Your task to perform on an android device: open sync settings in chrome Image 0: 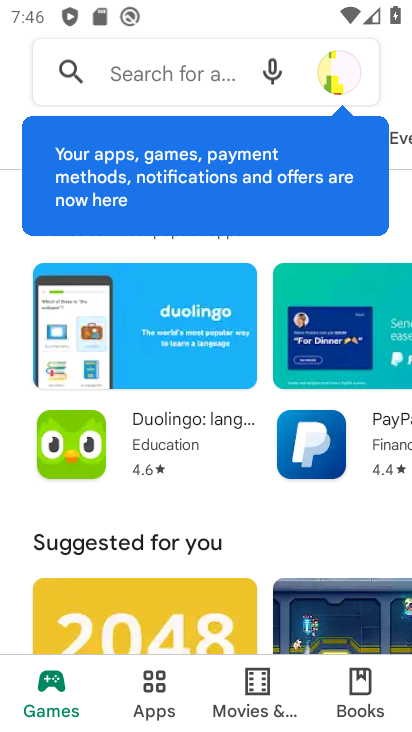
Step 0: press home button
Your task to perform on an android device: open sync settings in chrome Image 1: 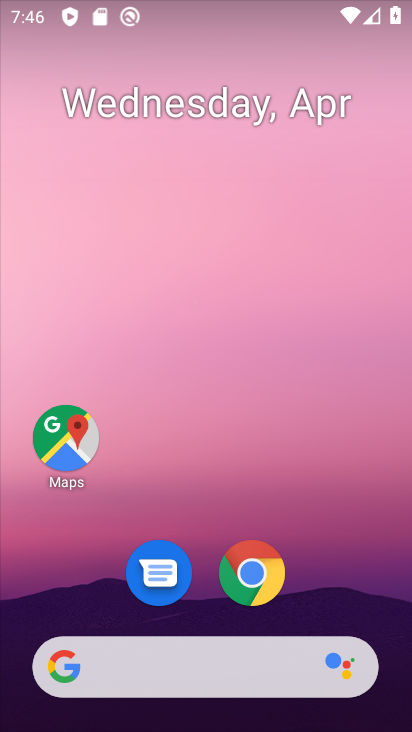
Step 1: click (253, 576)
Your task to perform on an android device: open sync settings in chrome Image 2: 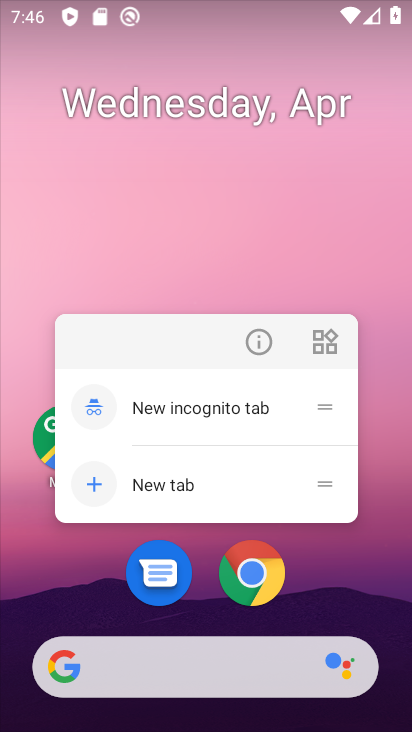
Step 2: click (249, 342)
Your task to perform on an android device: open sync settings in chrome Image 3: 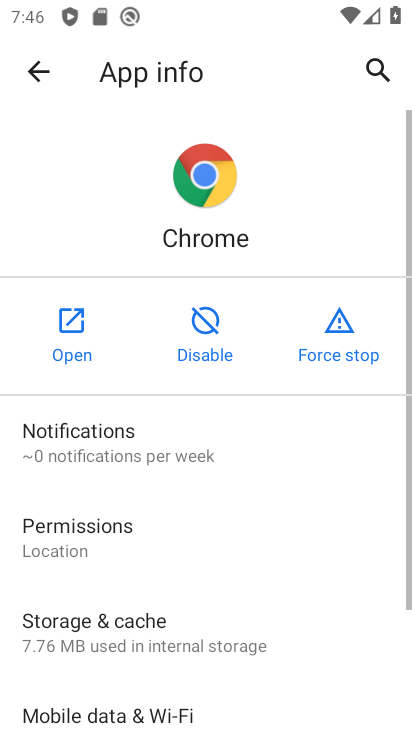
Step 3: click (65, 327)
Your task to perform on an android device: open sync settings in chrome Image 4: 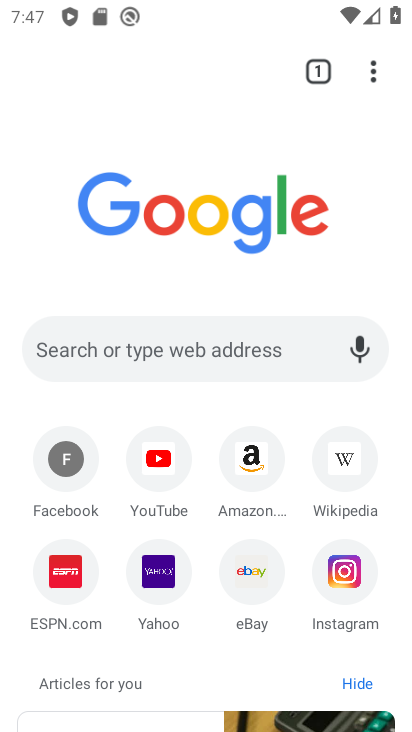
Step 4: click (379, 70)
Your task to perform on an android device: open sync settings in chrome Image 5: 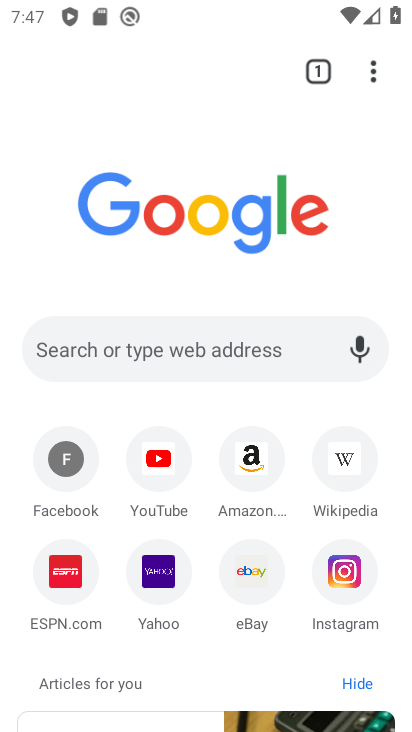
Step 5: click (411, 394)
Your task to perform on an android device: open sync settings in chrome Image 6: 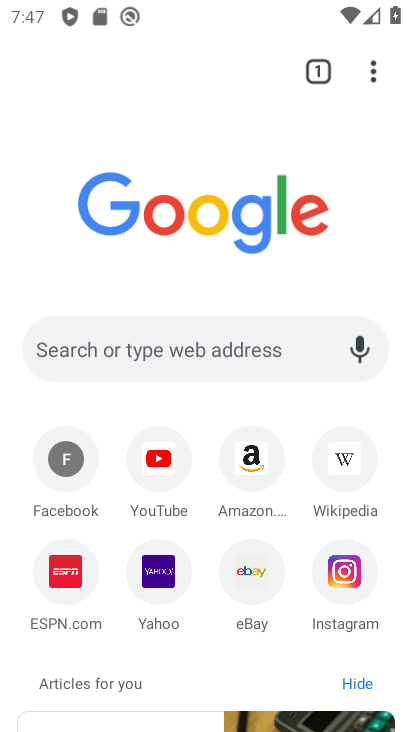
Step 6: click (380, 64)
Your task to perform on an android device: open sync settings in chrome Image 7: 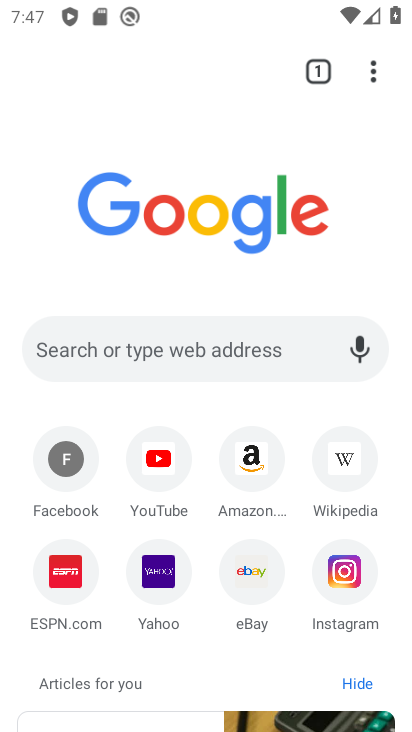
Step 7: click (379, 64)
Your task to perform on an android device: open sync settings in chrome Image 8: 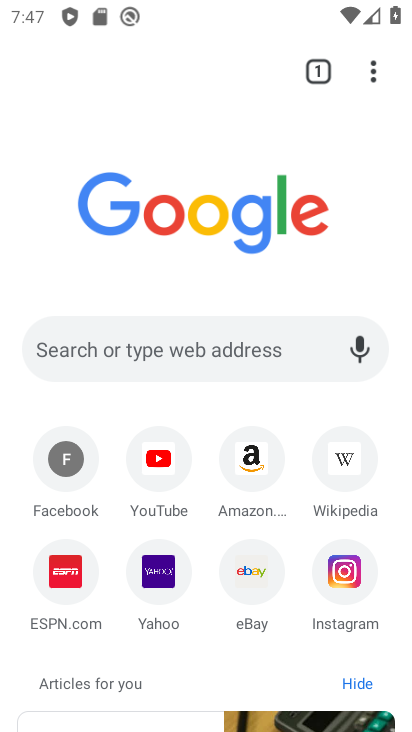
Step 8: click (370, 62)
Your task to perform on an android device: open sync settings in chrome Image 9: 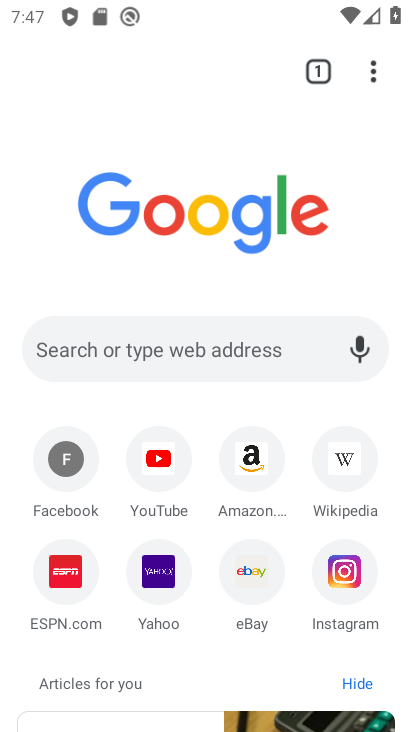
Step 9: click (375, 71)
Your task to perform on an android device: open sync settings in chrome Image 10: 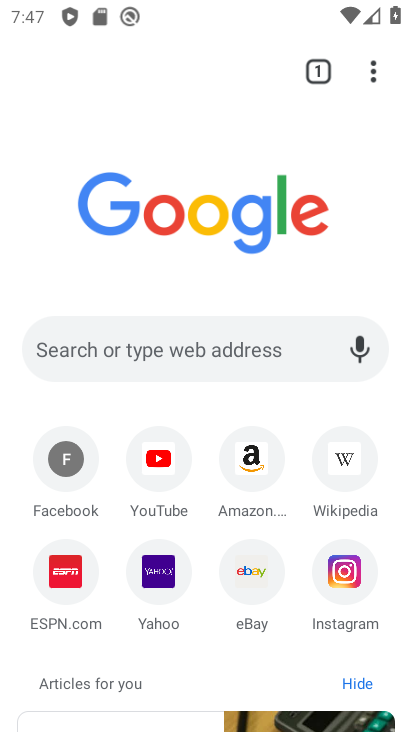
Step 10: click (375, 71)
Your task to perform on an android device: open sync settings in chrome Image 11: 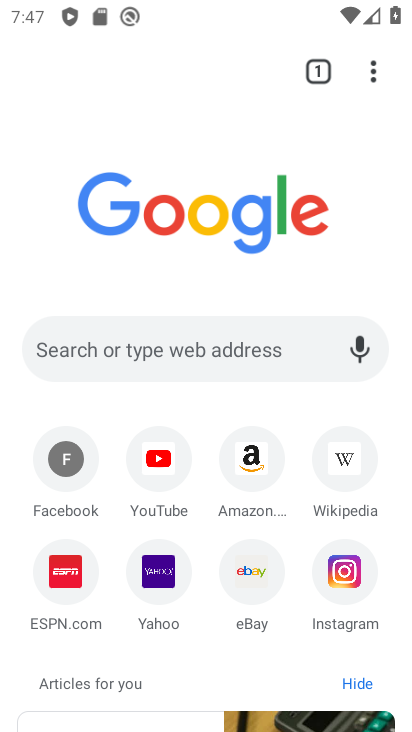
Step 11: click (399, 68)
Your task to perform on an android device: open sync settings in chrome Image 12: 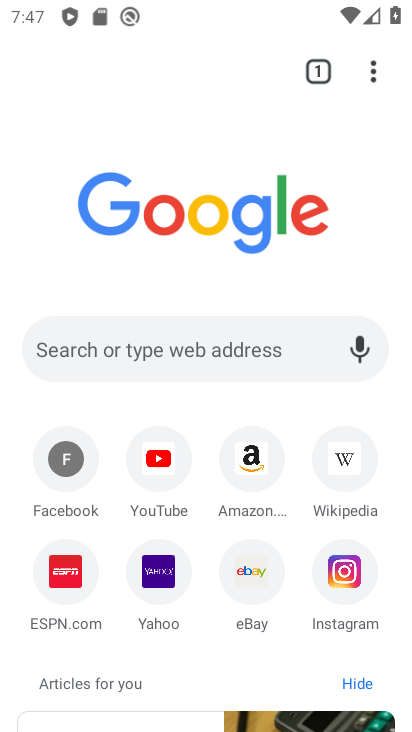
Step 12: click (399, 68)
Your task to perform on an android device: open sync settings in chrome Image 13: 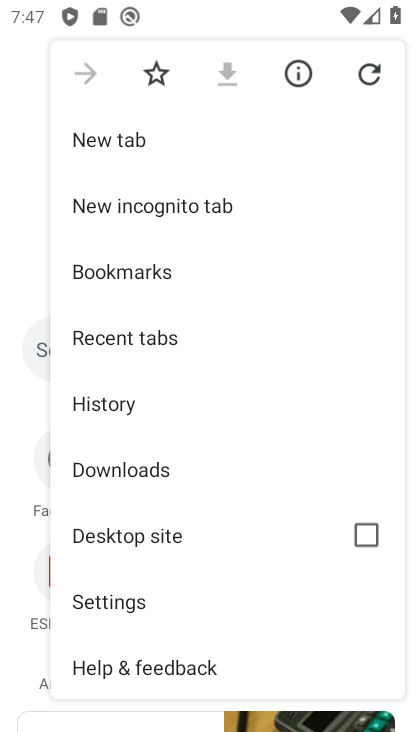
Step 13: click (119, 606)
Your task to perform on an android device: open sync settings in chrome Image 14: 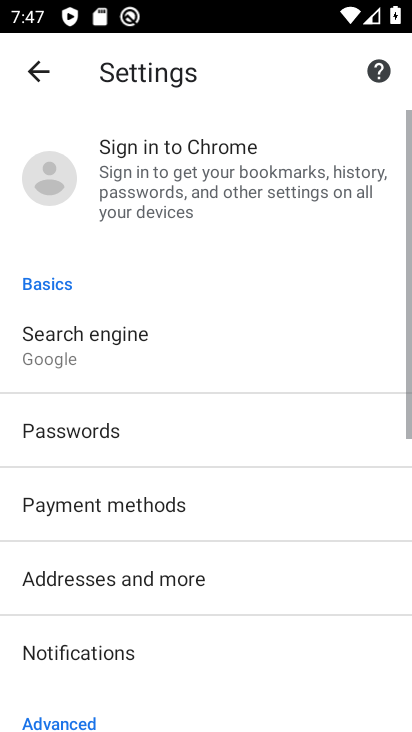
Step 14: drag from (94, 698) to (235, 336)
Your task to perform on an android device: open sync settings in chrome Image 15: 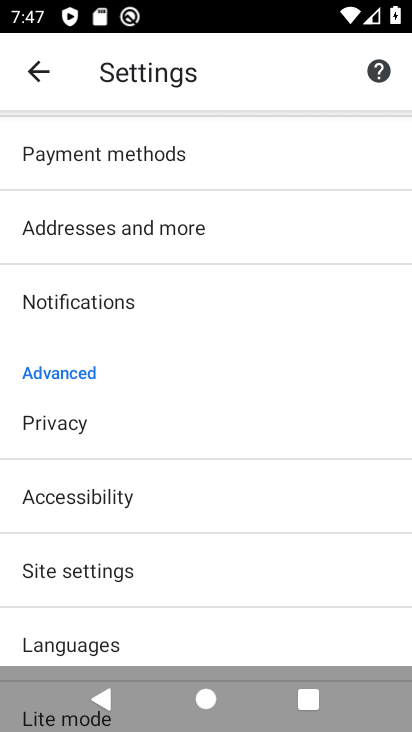
Step 15: drag from (200, 562) to (314, 269)
Your task to perform on an android device: open sync settings in chrome Image 16: 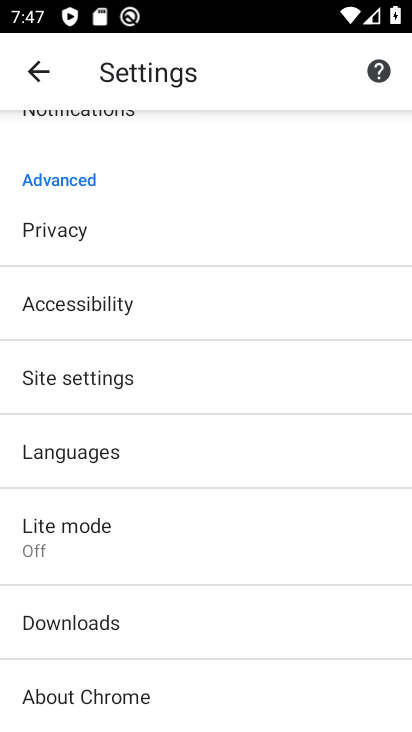
Step 16: click (148, 374)
Your task to perform on an android device: open sync settings in chrome Image 17: 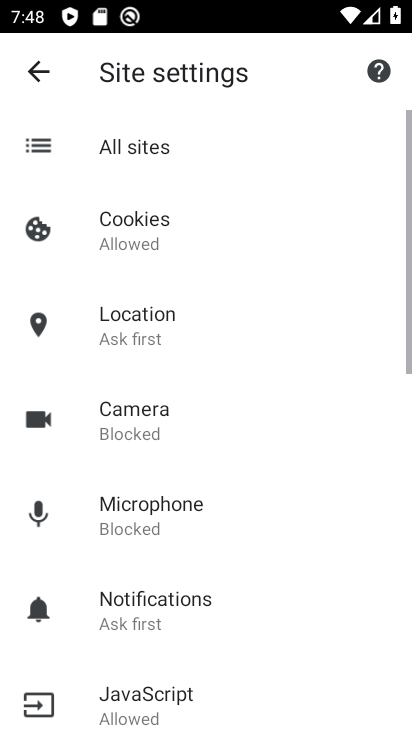
Step 17: drag from (107, 540) to (237, 289)
Your task to perform on an android device: open sync settings in chrome Image 18: 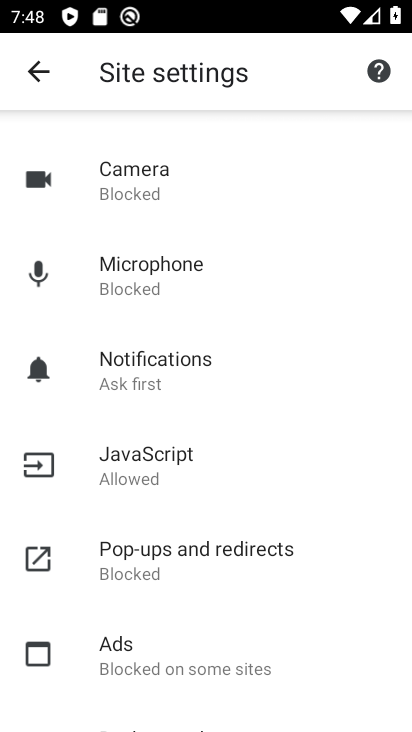
Step 18: drag from (250, 652) to (319, 420)
Your task to perform on an android device: open sync settings in chrome Image 19: 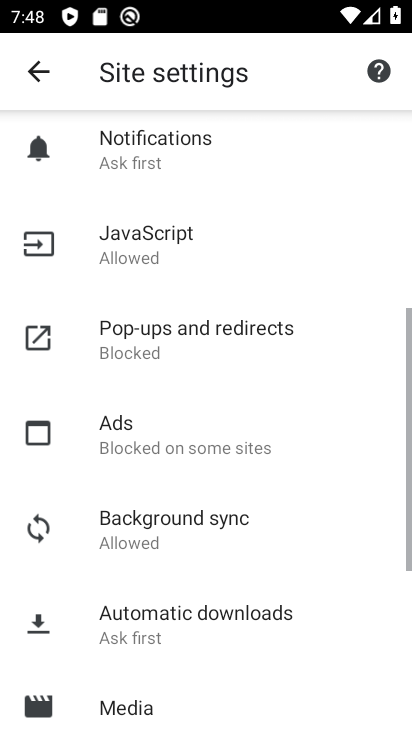
Step 19: click (222, 524)
Your task to perform on an android device: open sync settings in chrome Image 20: 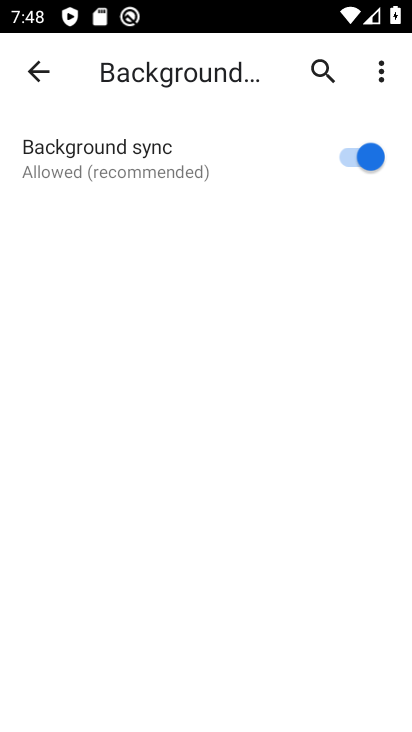
Step 20: click (76, 172)
Your task to perform on an android device: open sync settings in chrome Image 21: 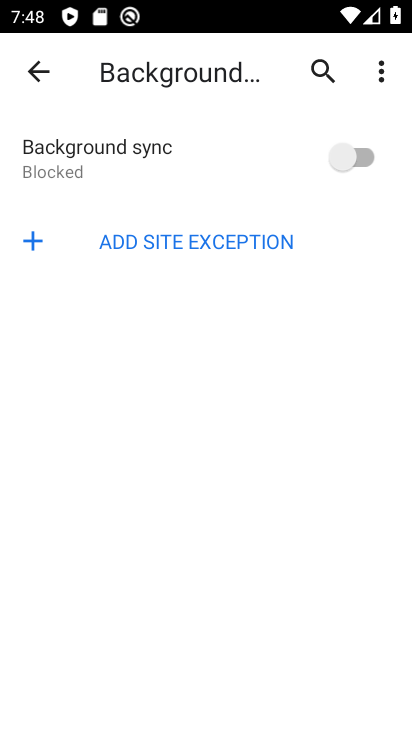
Step 21: click (76, 172)
Your task to perform on an android device: open sync settings in chrome Image 22: 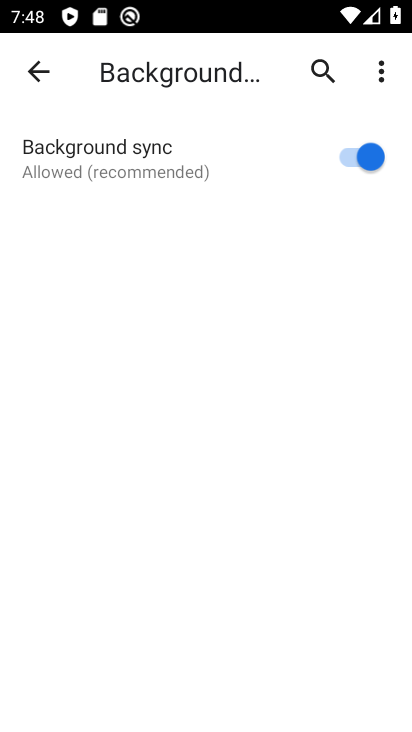
Step 22: task complete